Your task to perform on an android device: Set the phone to "Do not disturb". Image 0: 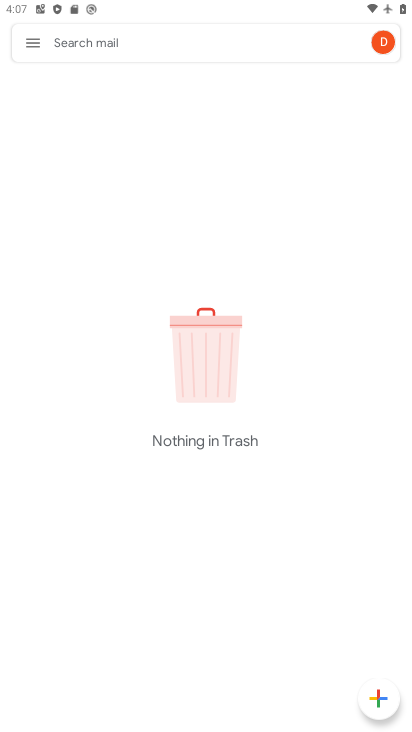
Step 0: press back button
Your task to perform on an android device: Set the phone to "Do not disturb". Image 1: 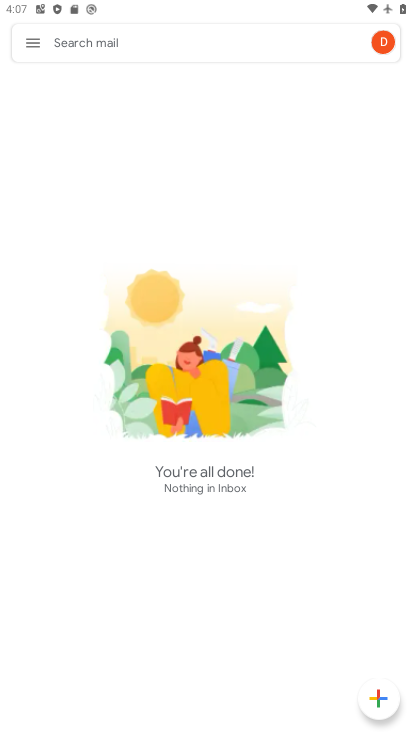
Step 1: press back button
Your task to perform on an android device: Set the phone to "Do not disturb". Image 2: 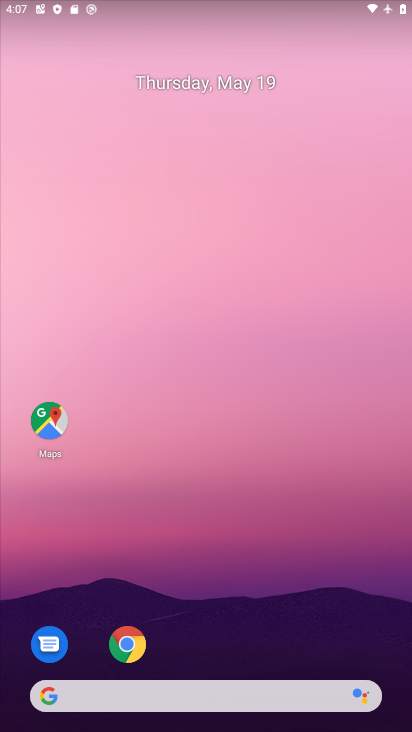
Step 2: drag from (239, 548) to (229, 3)
Your task to perform on an android device: Set the phone to "Do not disturb". Image 3: 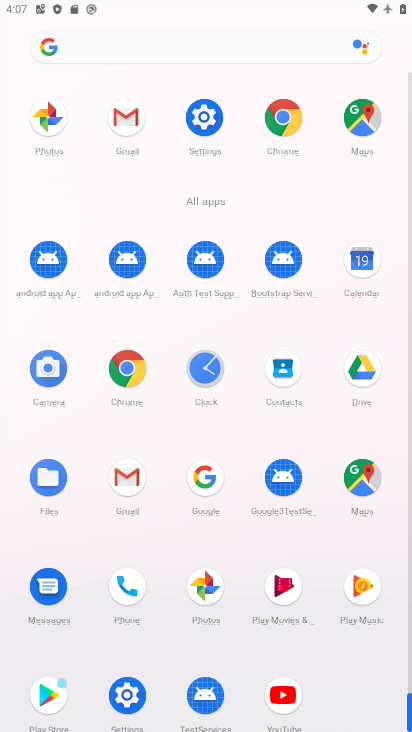
Step 3: click (127, 693)
Your task to perform on an android device: Set the phone to "Do not disturb". Image 4: 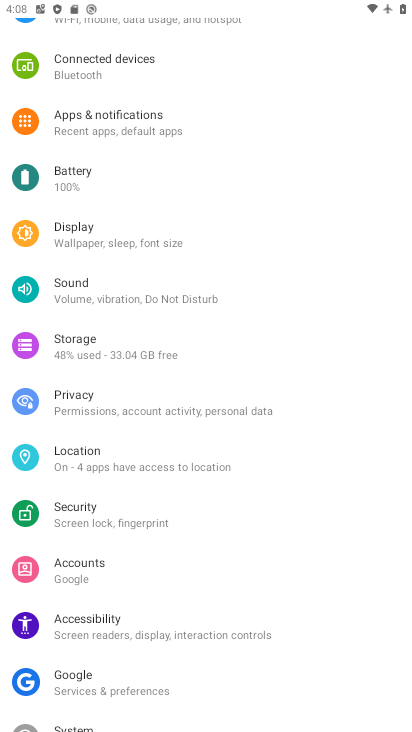
Step 4: click (172, 291)
Your task to perform on an android device: Set the phone to "Do not disturb". Image 5: 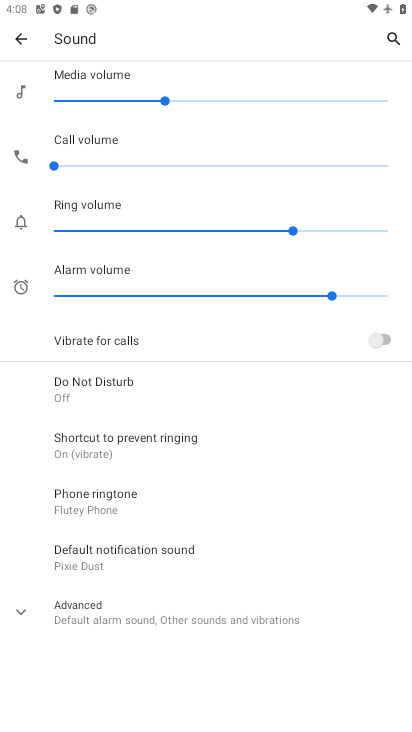
Step 5: click (61, 621)
Your task to perform on an android device: Set the phone to "Do not disturb". Image 6: 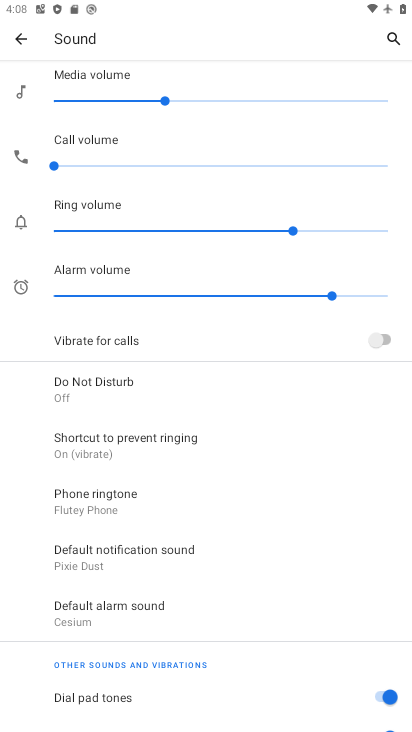
Step 6: click (112, 388)
Your task to perform on an android device: Set the phone to "Do not disturb". Image 7: 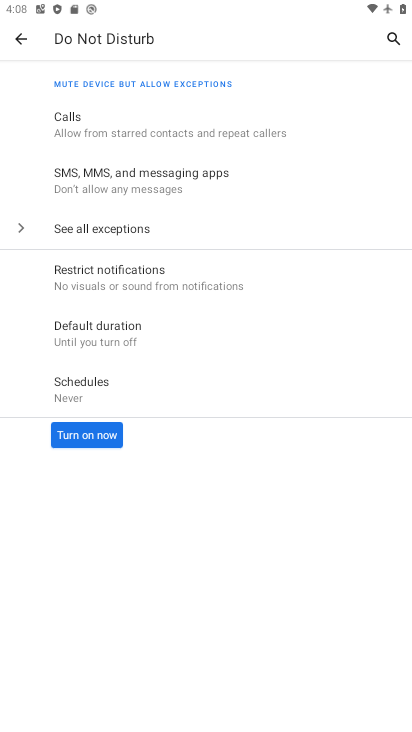
Step 7: click (104, 436)
Your task to perform on an android device: Set the phone to "Do not disturb". Image 8: 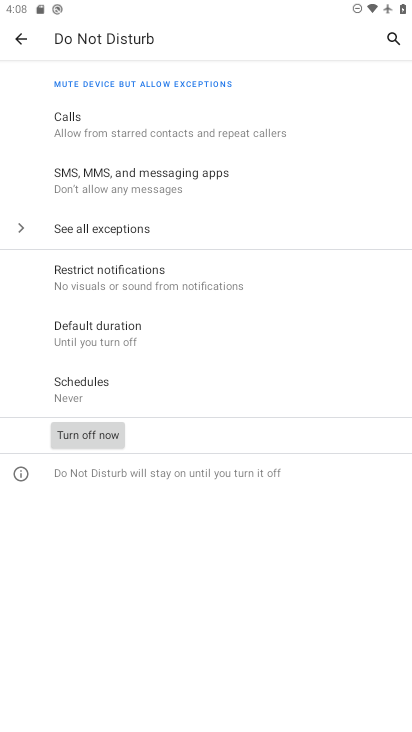
Step 8: task complete